Your task to perform on an android device: allow notifications from all sites in the chrome app Image 0: 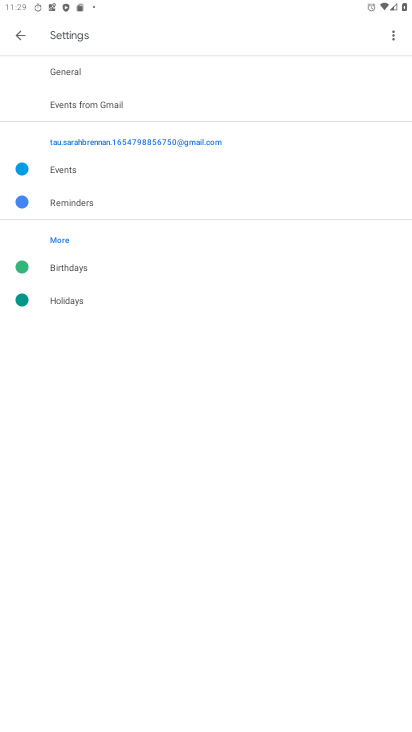
Step 0: press home button
Your task to perform on an android device: allow notifications from all sites in the chrome app Image 1: 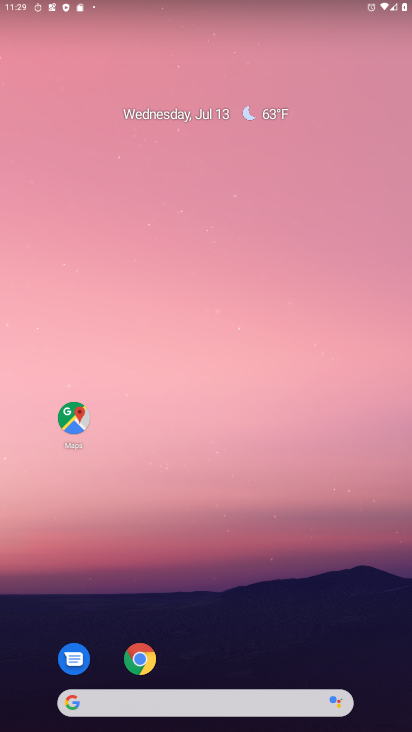
Step 1: drag from (298, 583) to (295, 136)
Your task to perform on an android device: allow notifications from all sites in the chrome app Image 2: 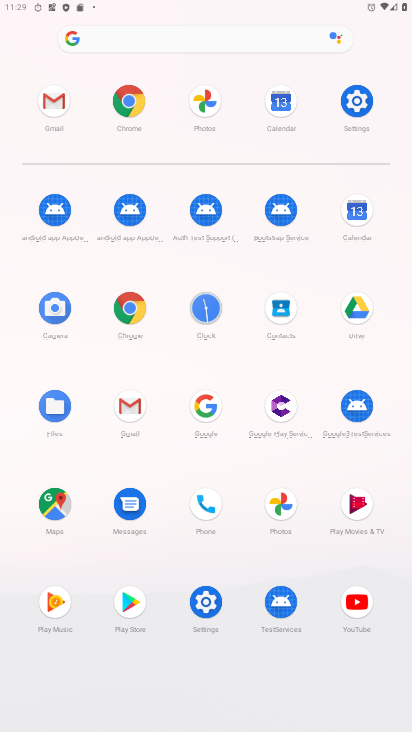
Step 2: click (125, 306)
Your task to perform on an android device: allow notifications from all sites in the chrome app Image 3: 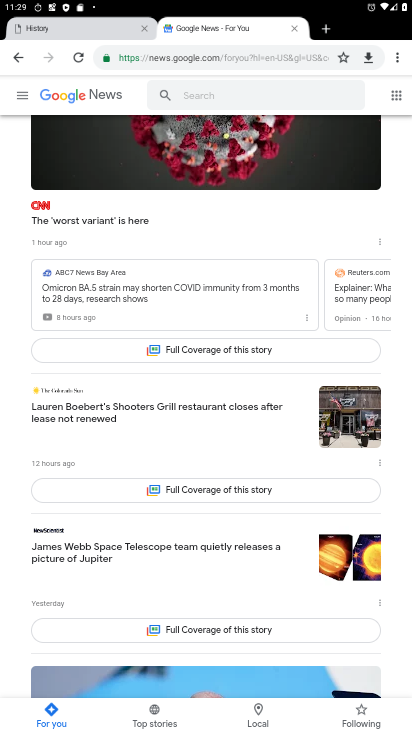
Step 3: drag from (399, 60) to (279, 378)
Your task to perform on an android device: allow notifications from all sites in the chrome app Image 4: 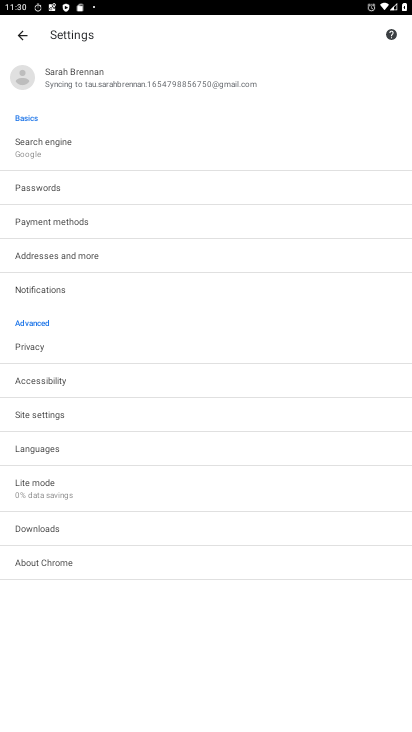
Step 4: click (51, 286)
Your task to perform on an android device: allow notifications from all sites in the chrome app Image 5: 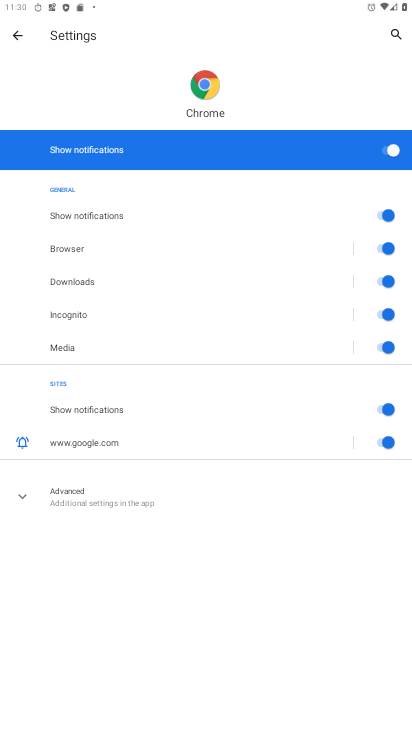
Step 5: task complete